Your task to perform on an android device: turn on priority inbox in the gmail app Image 0: 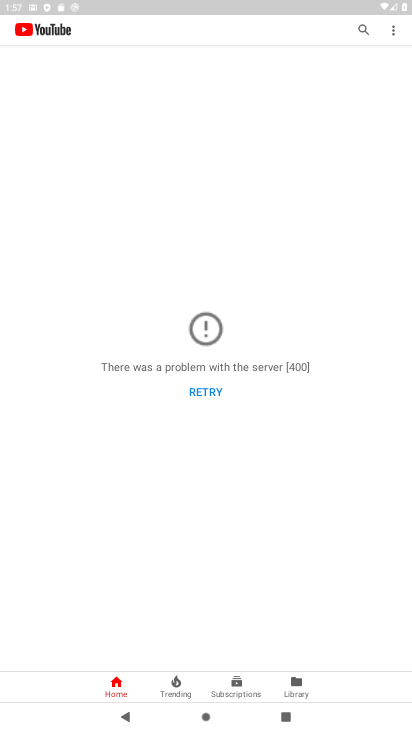
Step 0: press home button
Your task to perform on an android device: turn on priority inbox in the gmail app Image 1: 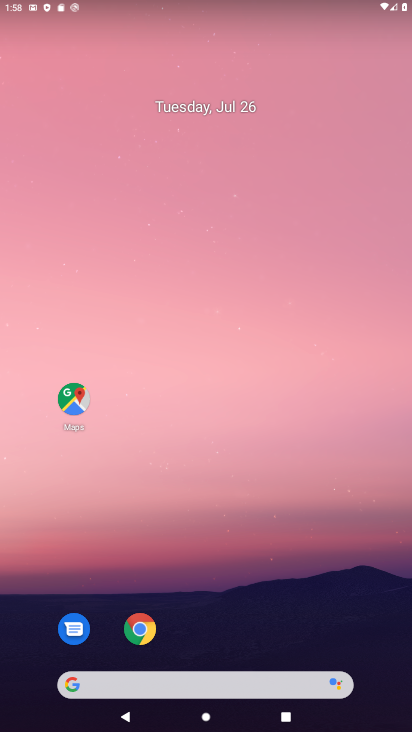
Step 1: drag from (256, 607) to (269, 144)
Your task to perform on an android device: turn on priority inbox in the gmail app Image 2: 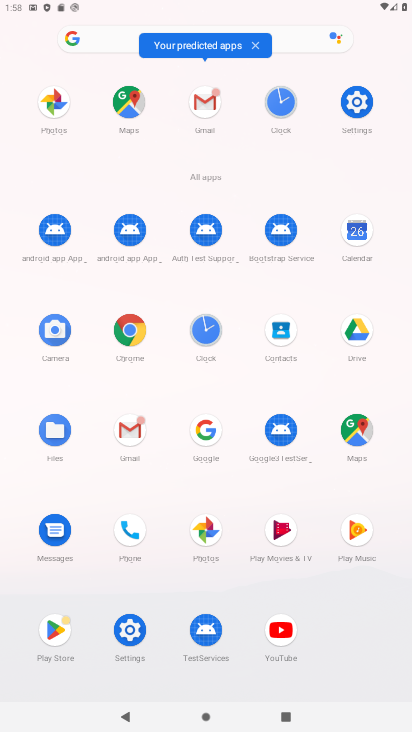
Step 2: click (204, 102)
Your task to perform on an android device: turn on priority inbox in the gmail app Image 3: 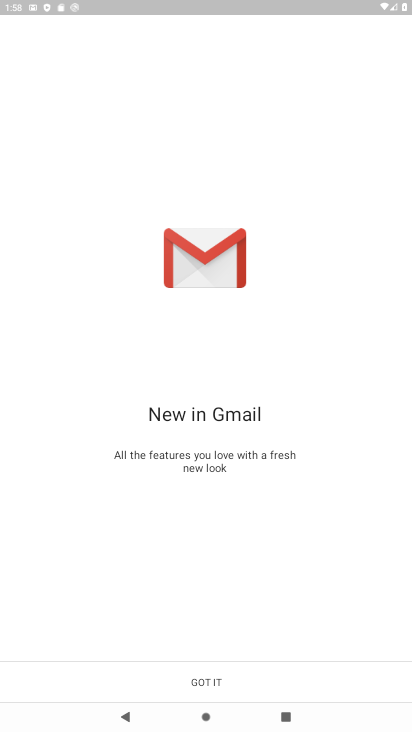
Step 3: click (212, 675)
Your task to perform on an android device: turn on priority inbox in the gmail app Image 4: 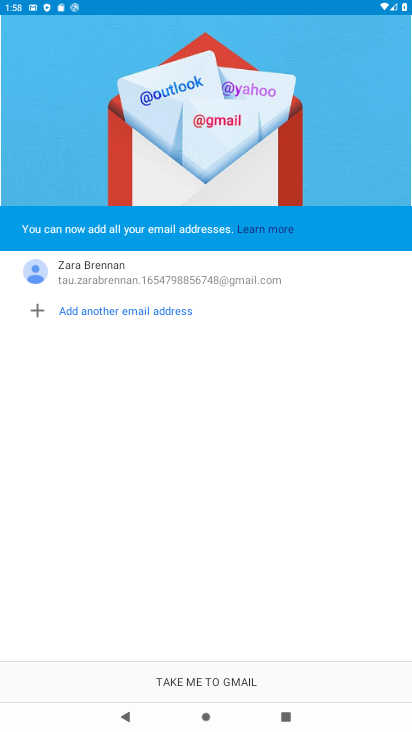
Step 4: click (210, 675)
Your task to perform on an android device: turn on priority inbox in the gmail app Image 5: 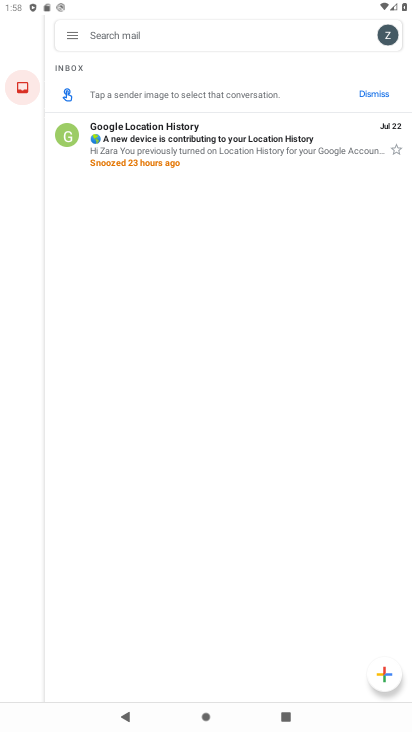
Step 5: click (73, 41)
Your task to perform on an android device: turn on priority inbox in the gmail app Image 6: 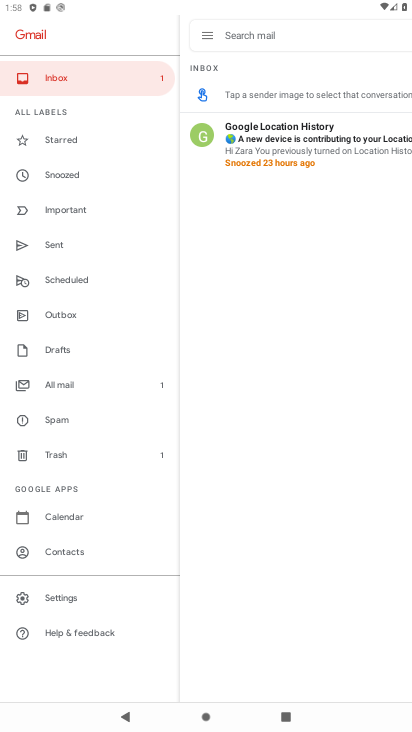
Step 6: click (90, 605)
Your task to perform on an android device: turn on priority inbox in the gmail app Image 7: 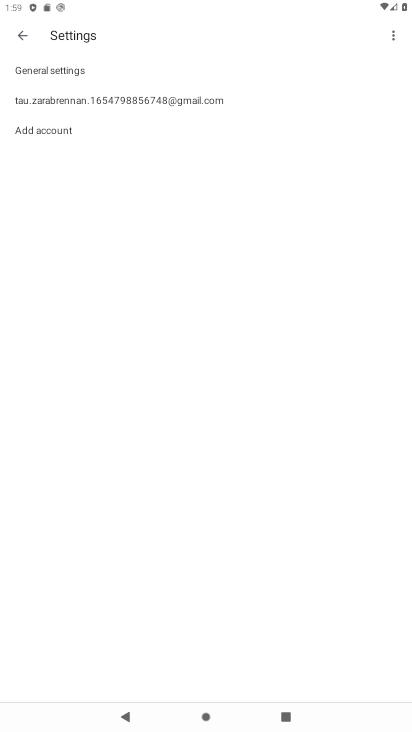
Step 7: click (158, 108)
Your task to perform on an android device: turn on priority inbox in the gmail app Image 8: 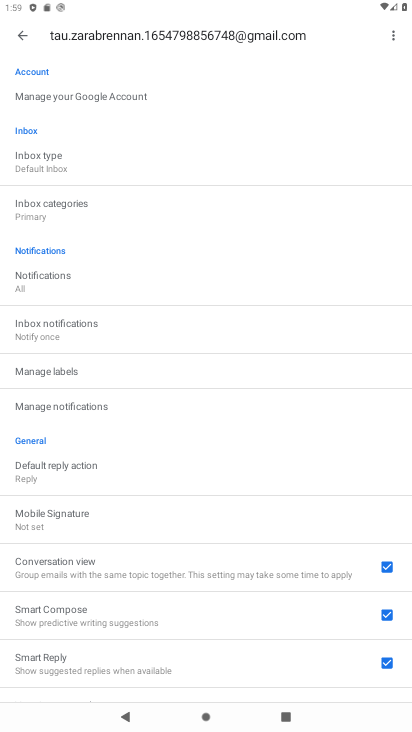
Step 8: click (56, 170)
Your task to perform on an android device: turn on priority inbox in the gmail app Image 9: 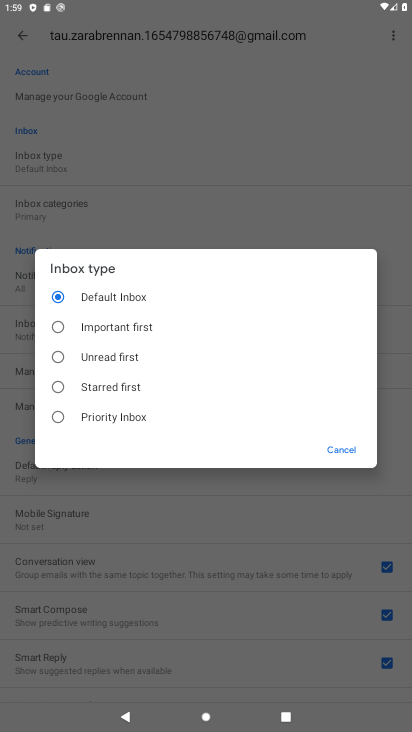
Step 9: click (80, 422)
Your task to perform on an android device: turn on priority inbox in the gmail app Image 10: 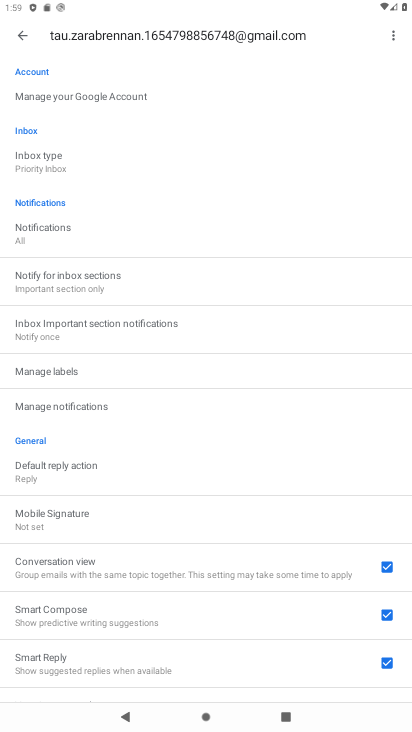
Step 10: task complete